Your task to perform on an android device: turn on notifications settings in the gmail app Image 0: 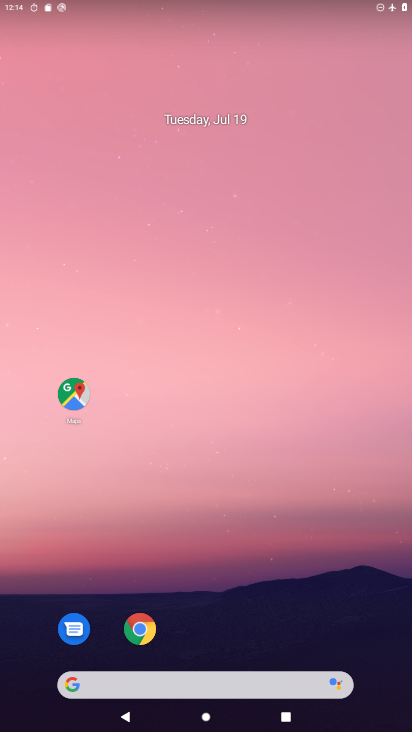
Step 0: drag from (281, 615) to (255, 139)
Your task to perform on an android device: turn on notifications settings in the gmail app Image 1: 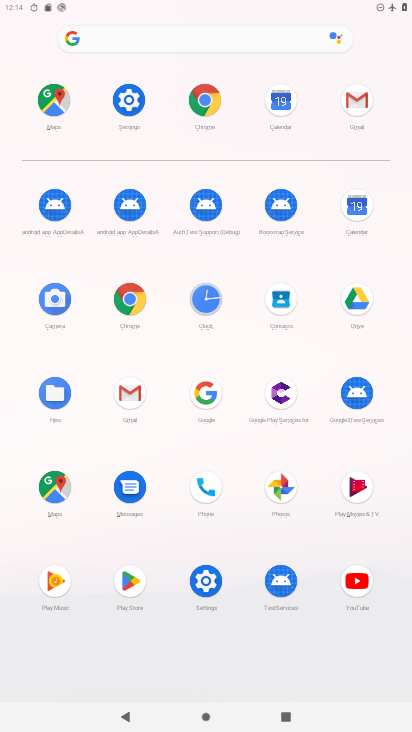
Step 1: click (359, 106)
Your task to perform on an android device: turn on notifications settings in the gmail app Image 2: 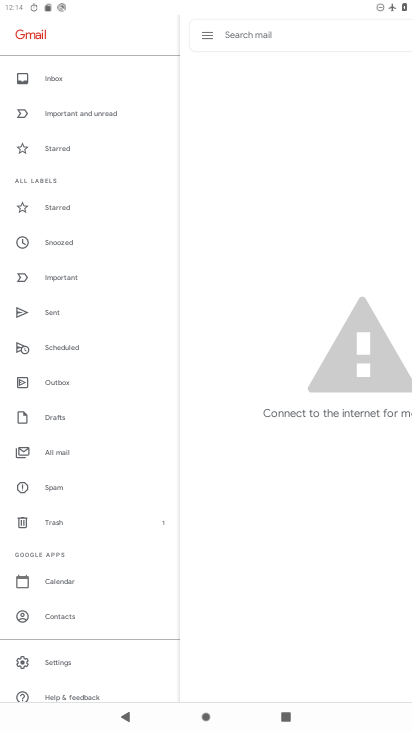
Step 2: click (78, 664)
Your task to perform on an android device: turn on notifications settings in the gmail app Image 3: 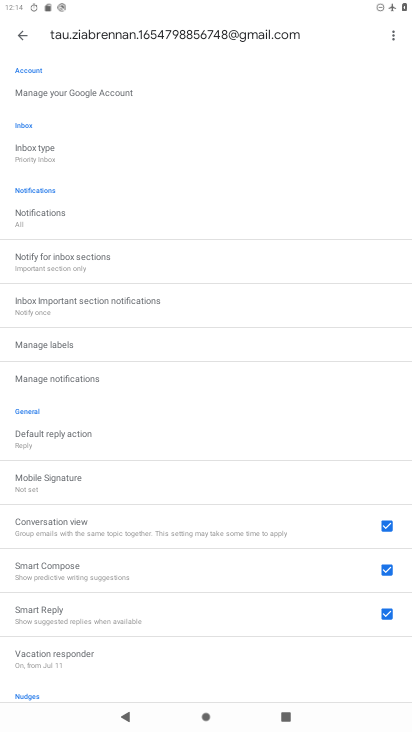
Step 3: click (60, 388)
Your task to perform on an android device: turn on notifications settings in the gmail app Image 4: 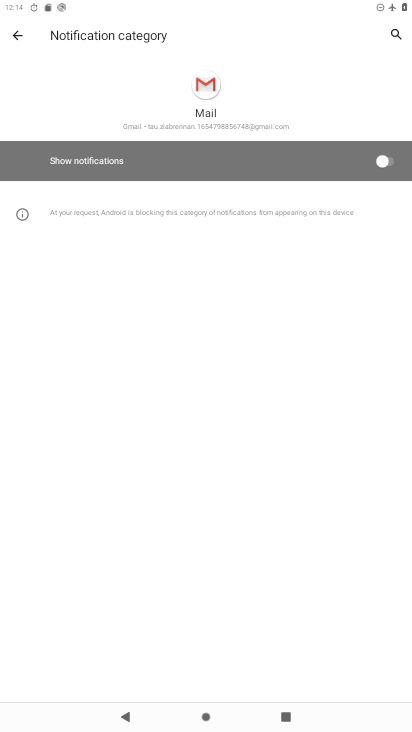
Step 4: click (362, 159)
Your task to perform on an android device: turn on notifications settings in the gmail app Image 5: 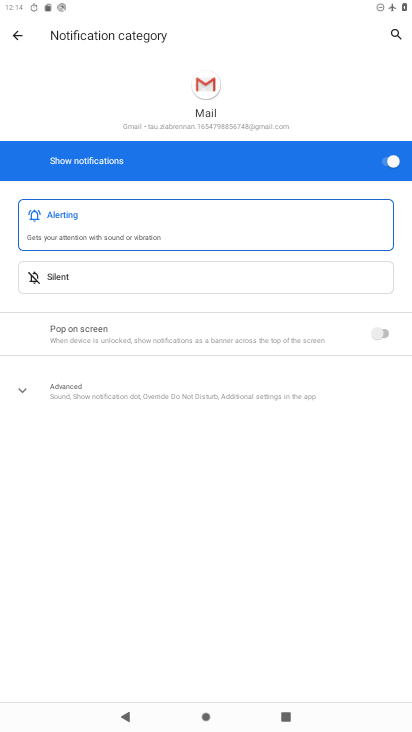
Step 5: task complete